Your task to perform on an android device: turn off airplane mode Image 0: 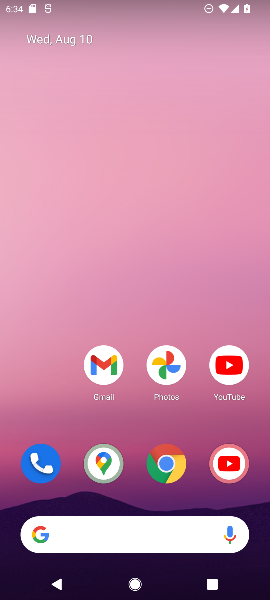
Step 0: drag from (137, 476) to (129, 18)
Your task to perform on an android device: turn off airplane mode Image 1: 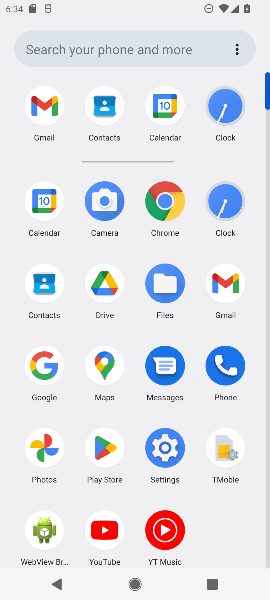
Step 1: click (166, 448)
Your task to perform on an android device: turn off airplane mode Image 2: 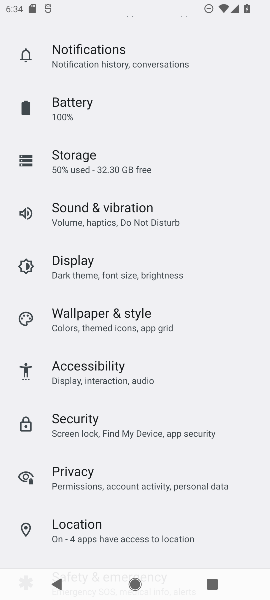
Step 2: drag from (161, 115) to (121, 391)
Your task to perform on an android device: turn off airplane mode Image 3: 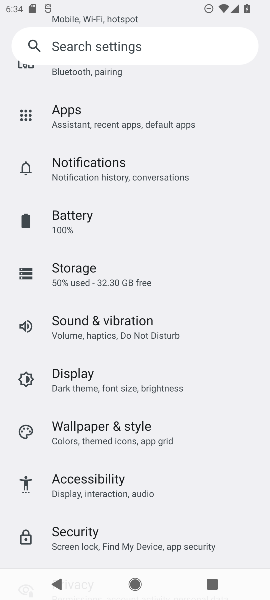
Step 3: drag from (147, 156) to (142, 289)
Your task to perform on an android device: turn off airplane mode Image 4: 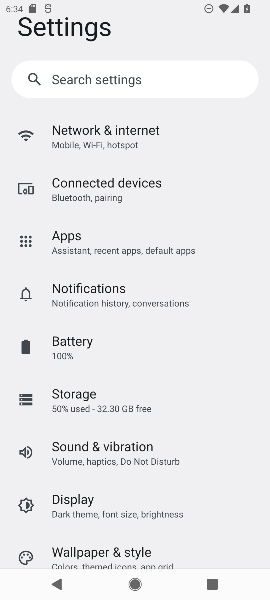
Step 4: click (90, 128)
Your task to perform on an android device: turn off airplane mode Image 5: 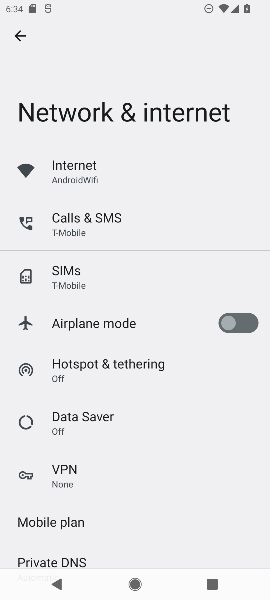
Step 5: task complete